Your task to perform on an android device: Open eBay Image 0: 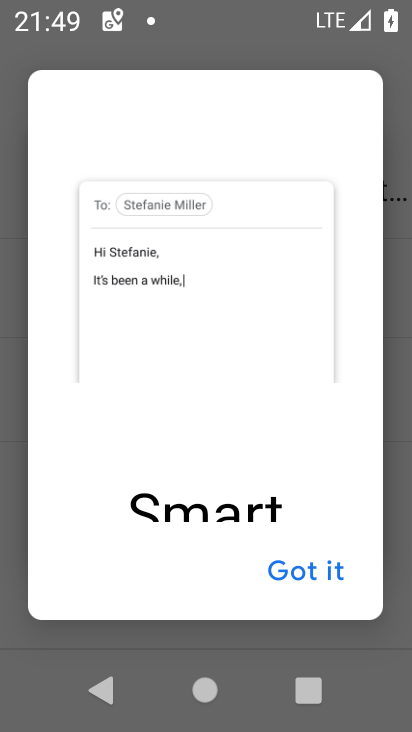
Step 0: press home button
Your task to perform on an android device: Open eBay Image 1: 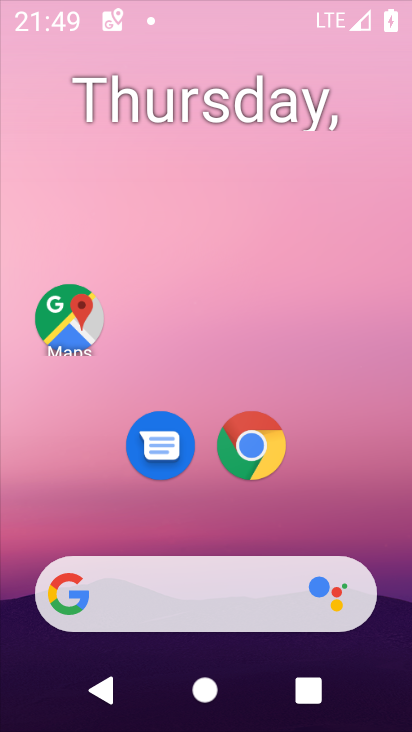
Step 1: drag from (244, 461) to (265, 47)
Your task to perform on an android device: Open eBay Image 2: 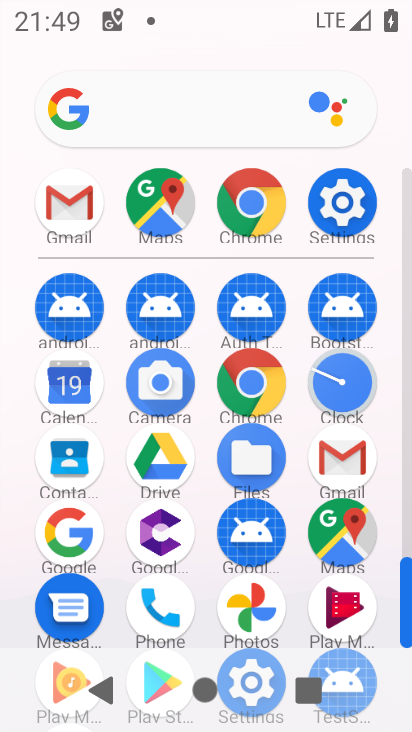
Step 2: click (190, 103)
Your task to perform on an android device: Open eBay Image 3: 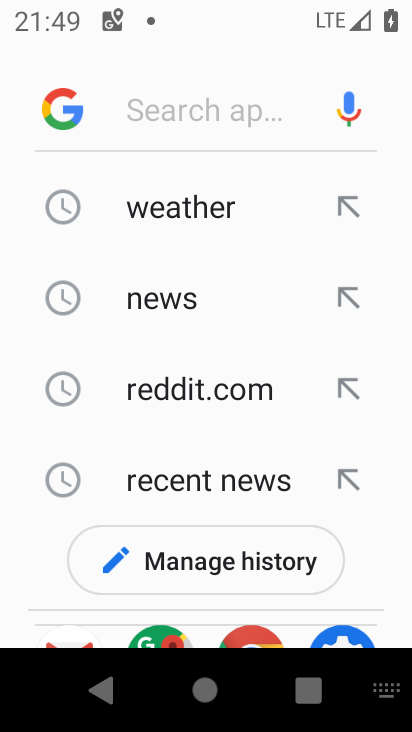
Step 3: type "eBay"
Your task to perform on an android device: Open eBay Image 4: 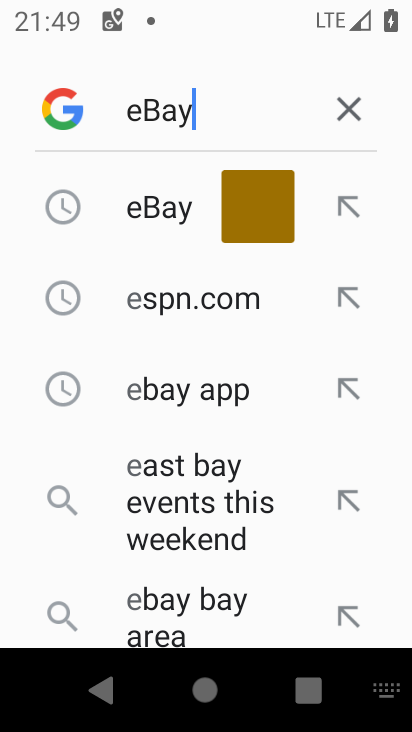
Step 4: type ""
Your task to perform on an android device: Open eBay Image 5: 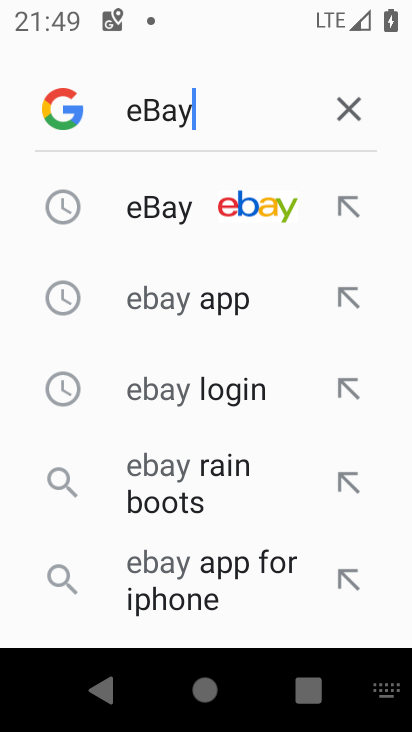
Step 5: click (180, 191)
Your task to perform on an android device: Open eBay Image 6: 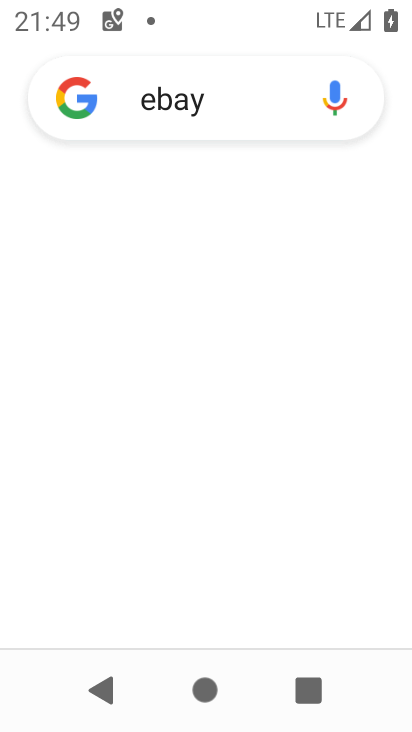
Step 6: task complete